Your task to perform on an android device: Find coffee shops on Maps Image 0: 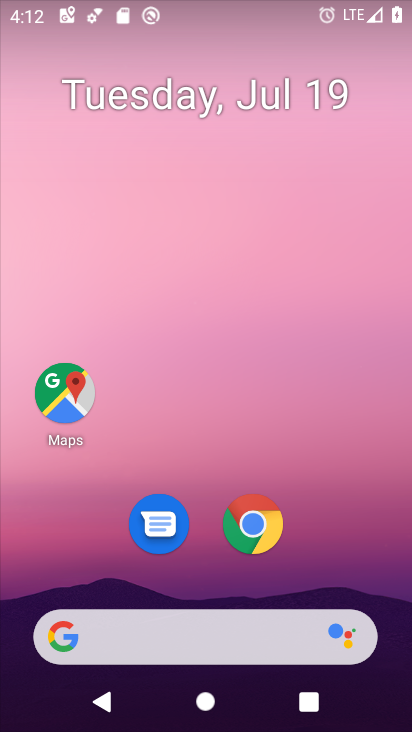
Step 0: click (65, 382)
Your task to perform on an android device: Find coffee shops on Maps Image 1: 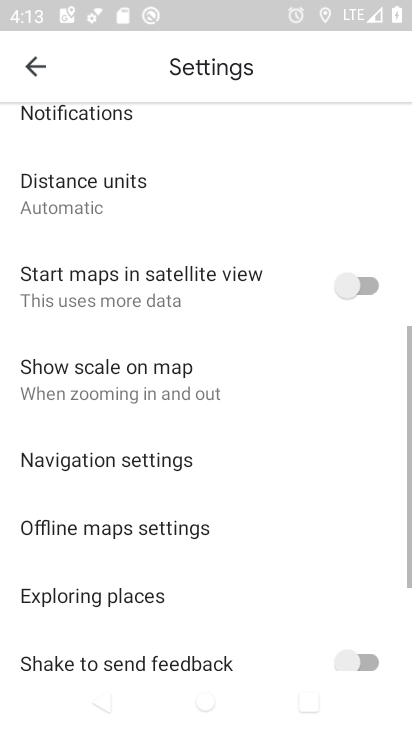
Step 1: click (36, 64)
Your task to perform on an android device: Find coffee shops on Maps Image 2: 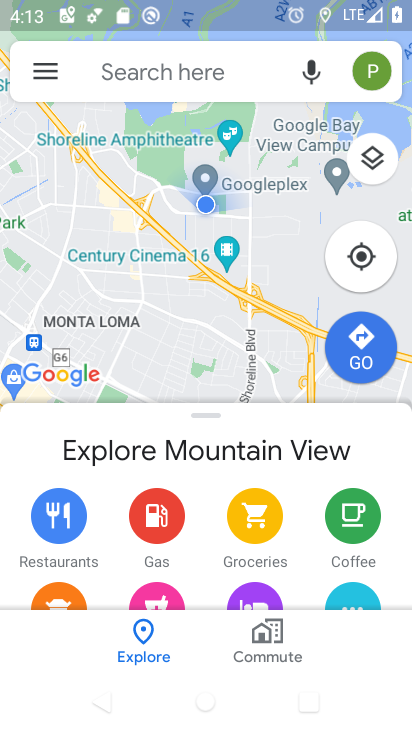
Step 2: click (115, 67)
Your task to perform on an android device: Find coffee shops on Maps Image 3: 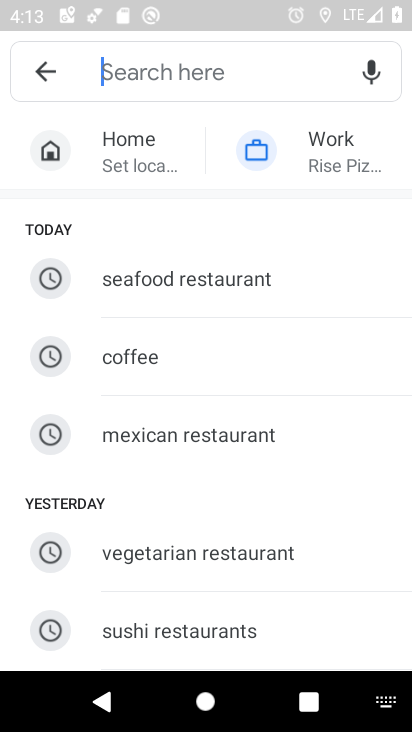
Step 3: click (128, 352)
Your task to perform on an android device: Find coffee shops on Maps Image 4: 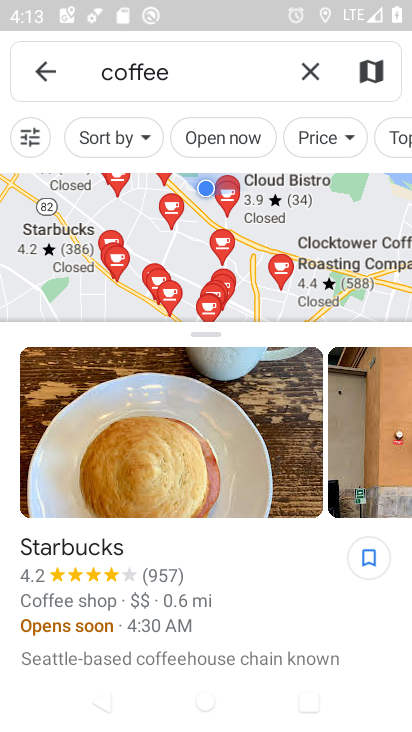
Step 4: task complete